Your task to perform on an android device: Go to settings Image 0: 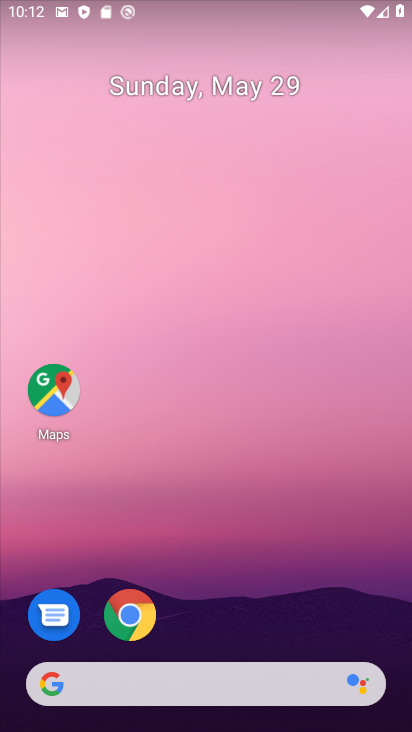
Step 0: drag from (384, 627) to (367, 152)
Your task to perform on an android device: Go to settings Image 1: 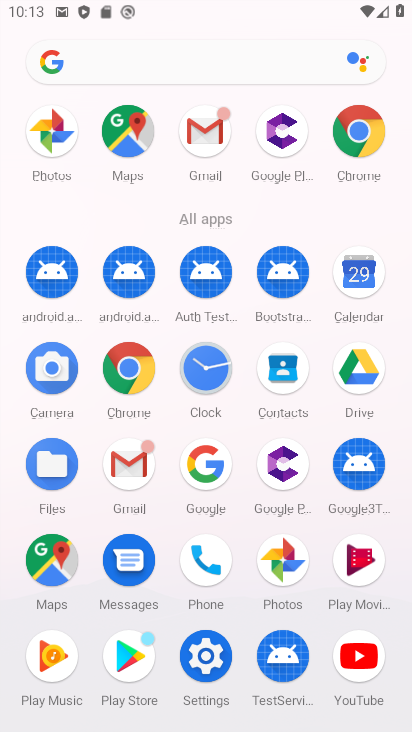
Step 1: click (201, 672)
Your task to perform on an android device: Go to settings Image 2: 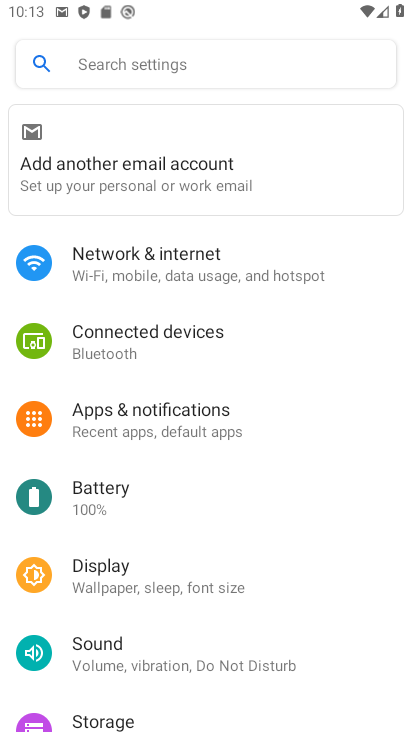
Step 2: task complete